Your task to perform on an android device: Open the map Image 0: 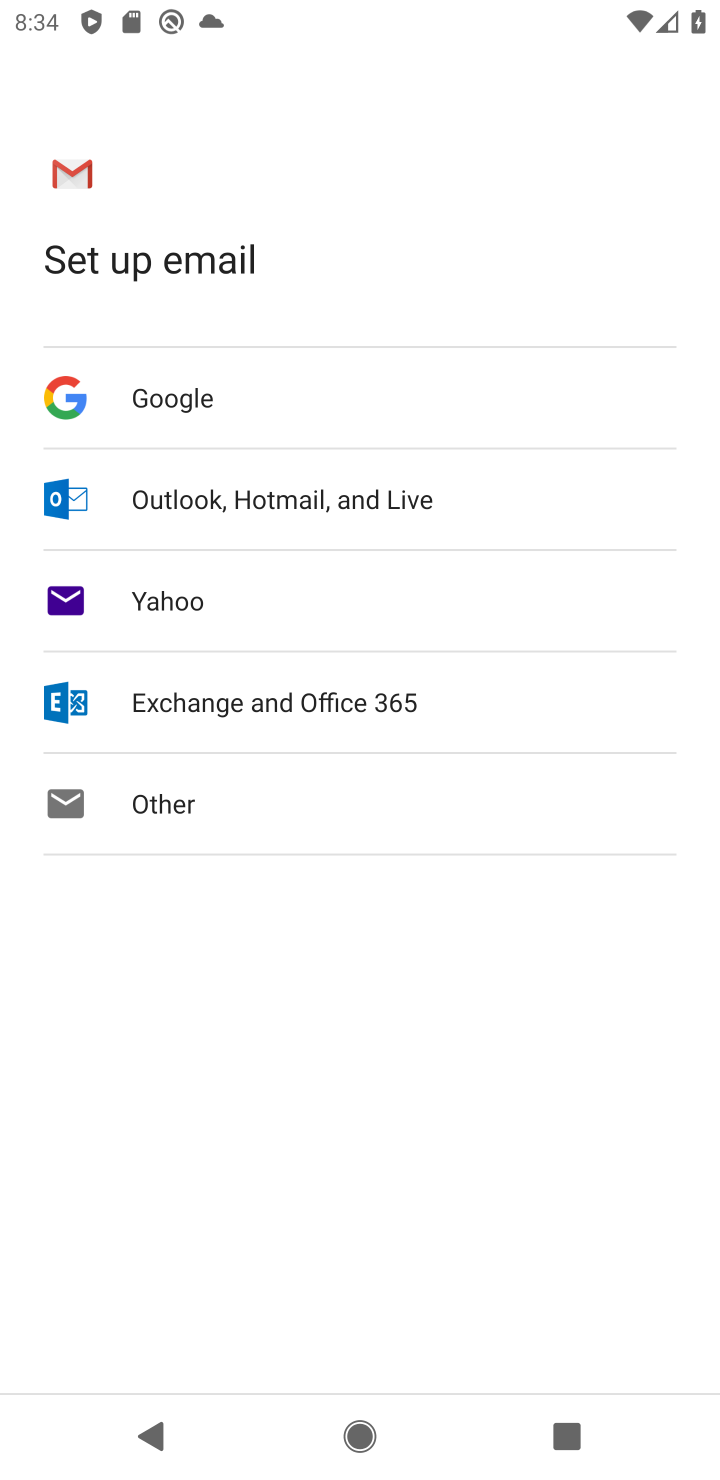
Step 0: press home button
Your task to perform on an android device: Open the map Image 1: 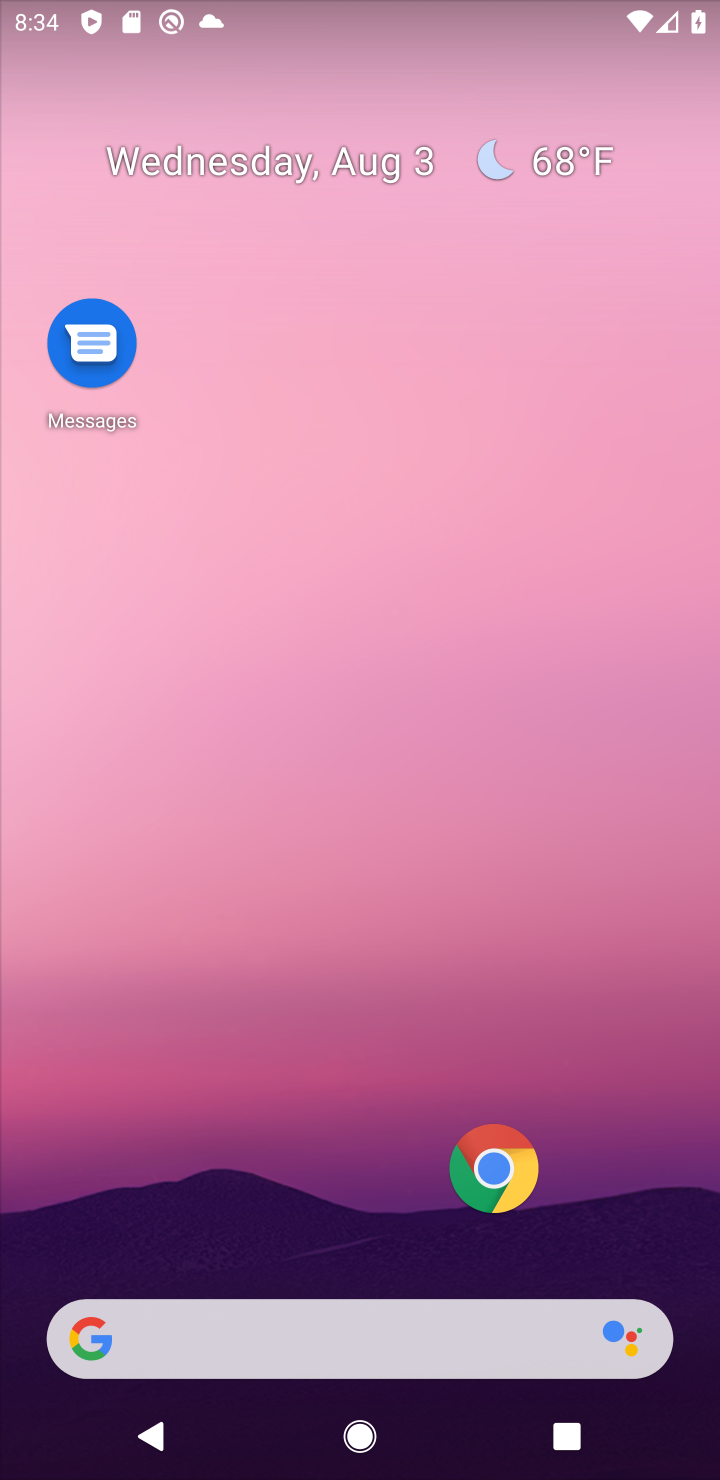
Step 1: drag from (438, 1302) to (391, 89)
Your task to perform on an android device: Open the map Image 2: 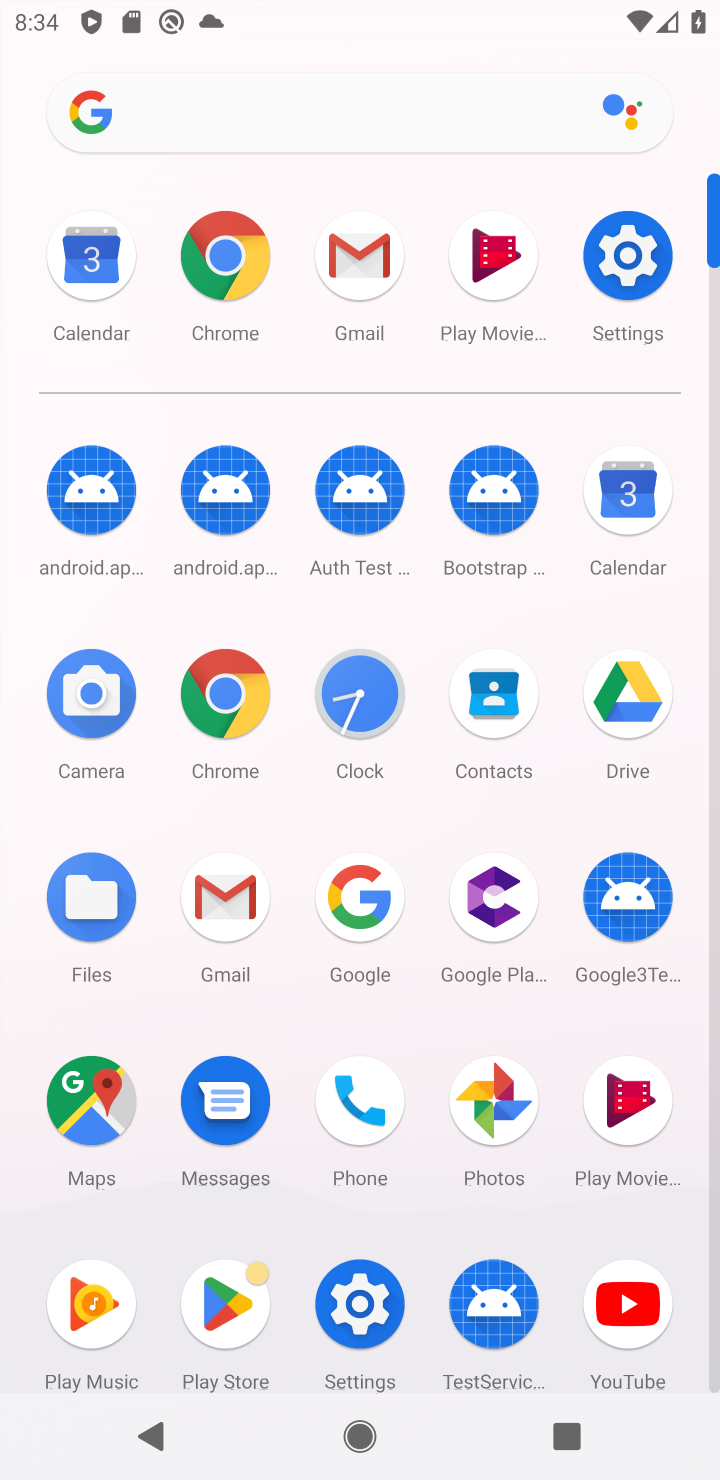
Step 2: click (103, 1101)
Your task to perform on an android device: Open the map Image 3: 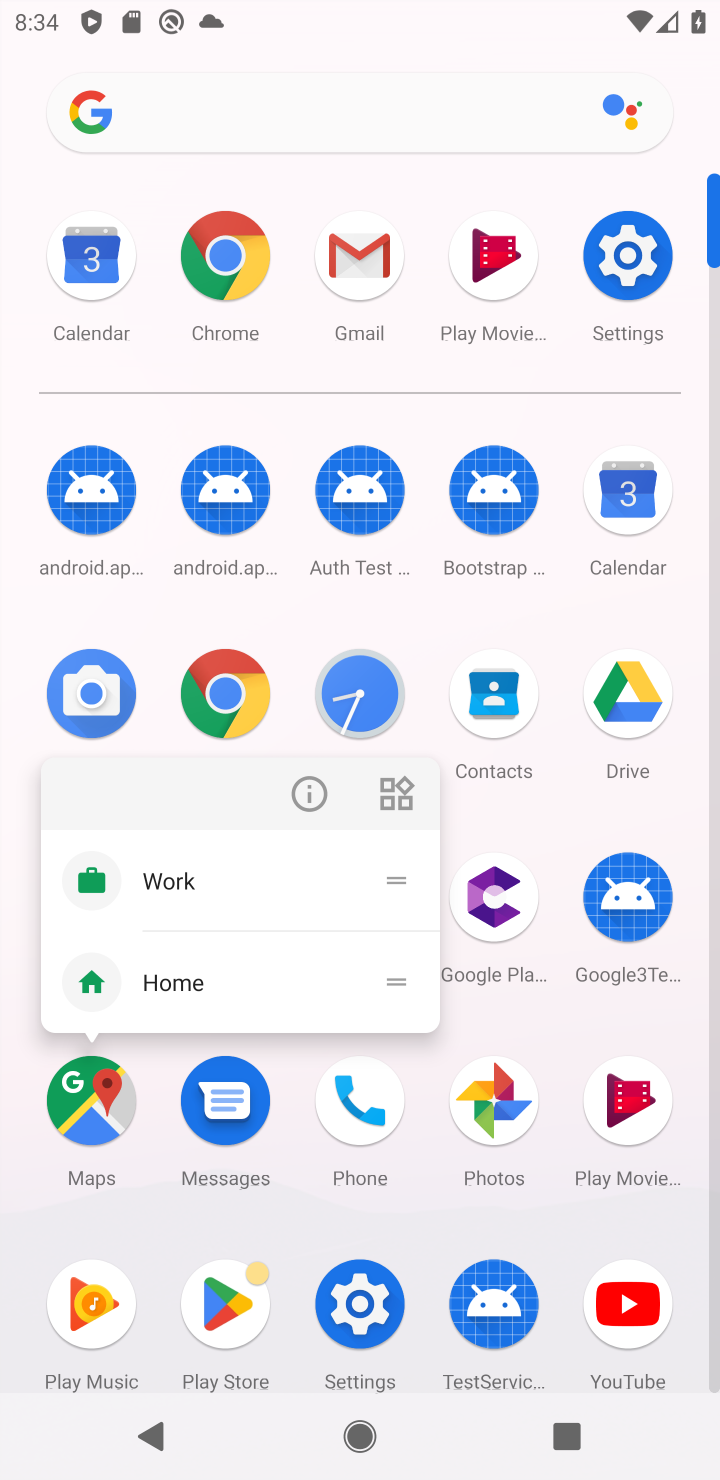
Step 3: click (101, 1093)
Your task to perform on an android device: Open the map Image 4: 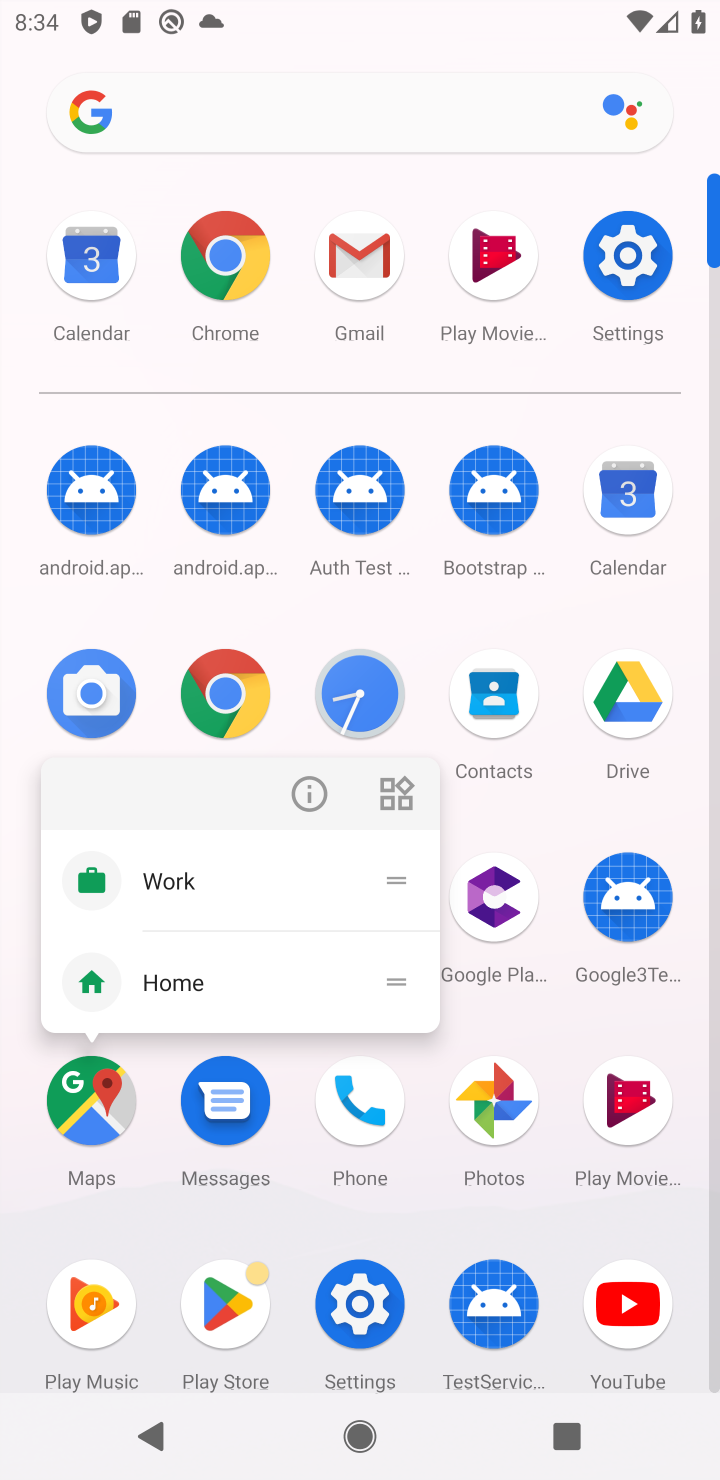
Step 4: click (101, 1093)
Your task to perform on an android device: Open the map Image 5: 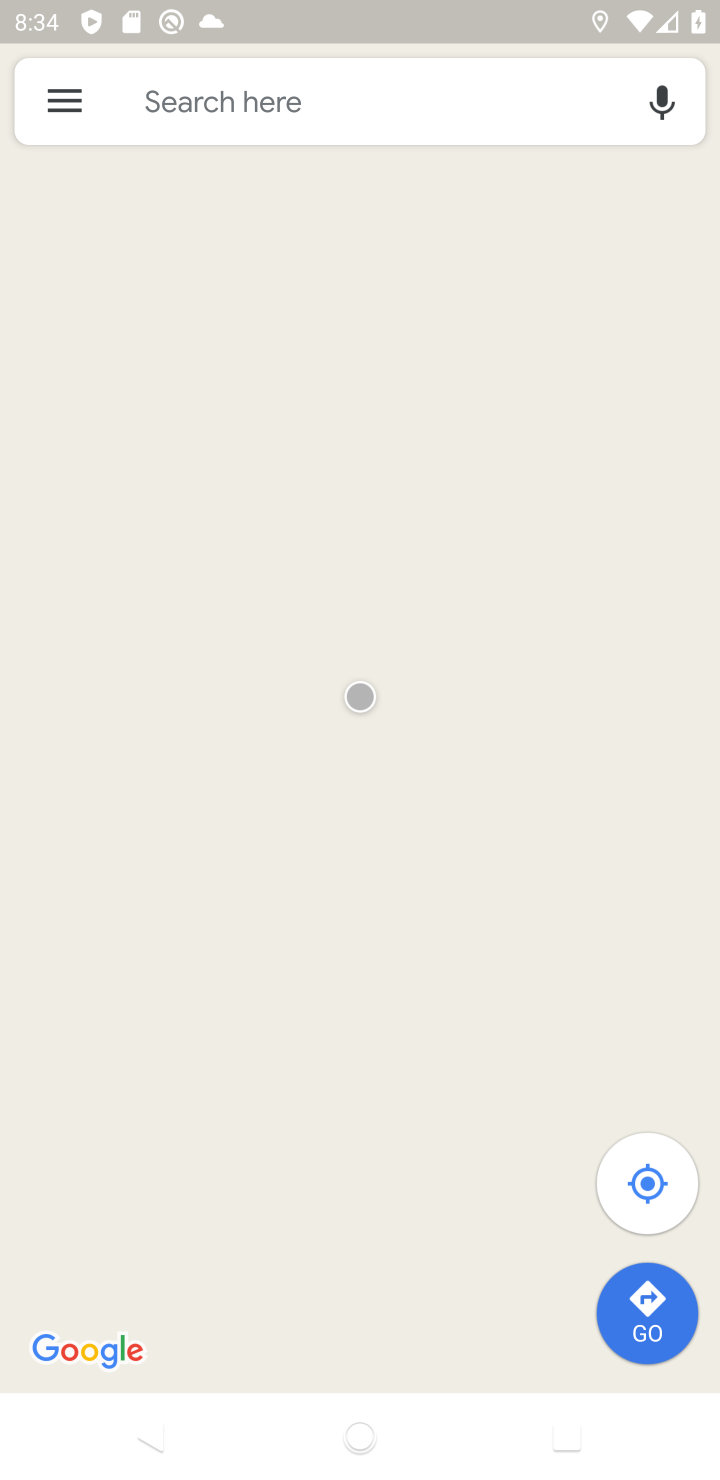
Step 5: task complete